Your task to perform on an android device: clear all cookies in the chrome app Image 0: 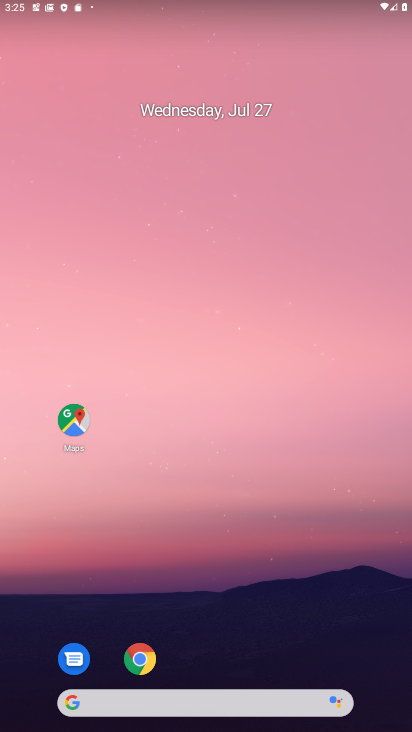
Step 0: click (135, 662)
Your task to perform on an android device: clear all cookies in the chrome app Image 1: 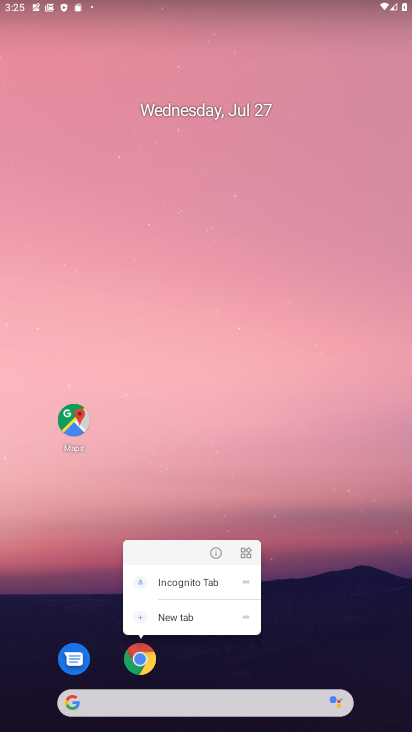
Step 1: click (141, 665)
Your task to perform on an android device: clear all cookies in the chrome app Image 2: 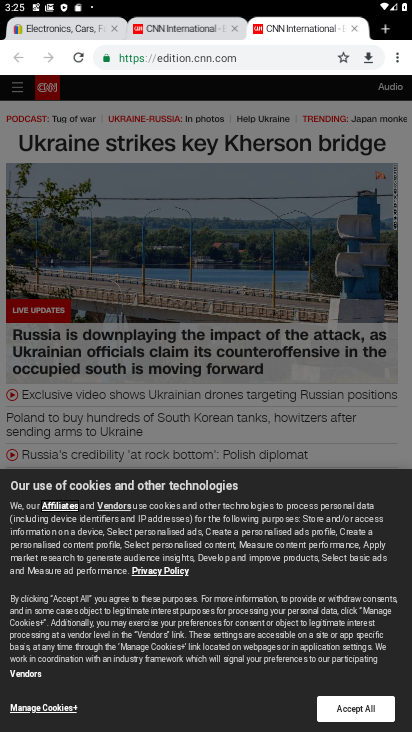
Step 2: click (401, 62)
Your task to perform on an android device: clear all cookies in the chrome app Image 3: 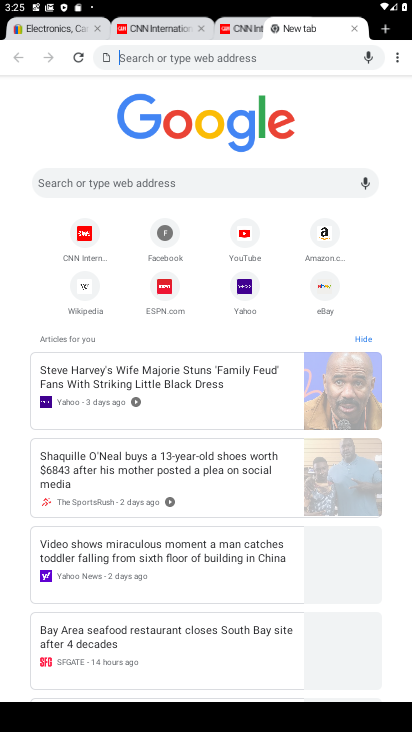
Step 3: click (396, 62)
Your task to perform on an android device: clear all cookies in the chrome app Image 4: 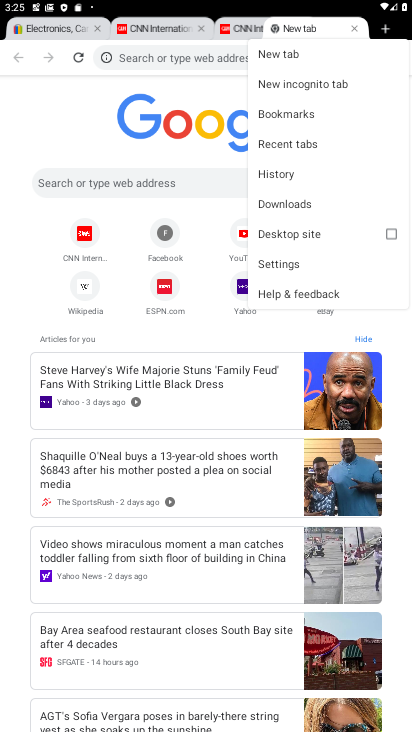
Step 4: click (284, 261)
Your task to perform on an android device: clear all cookies in the chrome app Image 5: 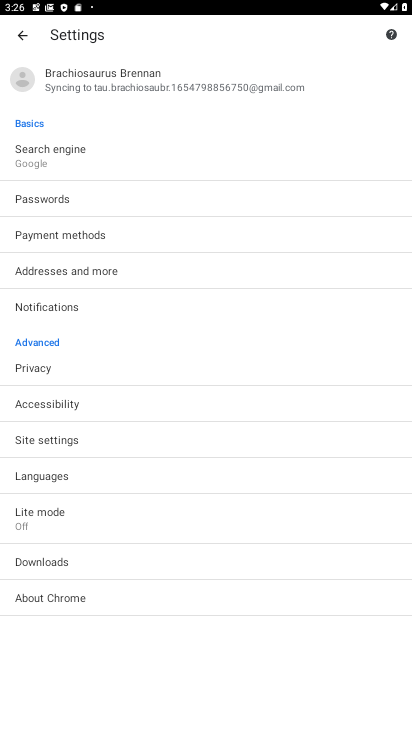
Step 5: click (28, 366)
Your task to perform on an android device: clear all cookies in the chrome app Image 6: 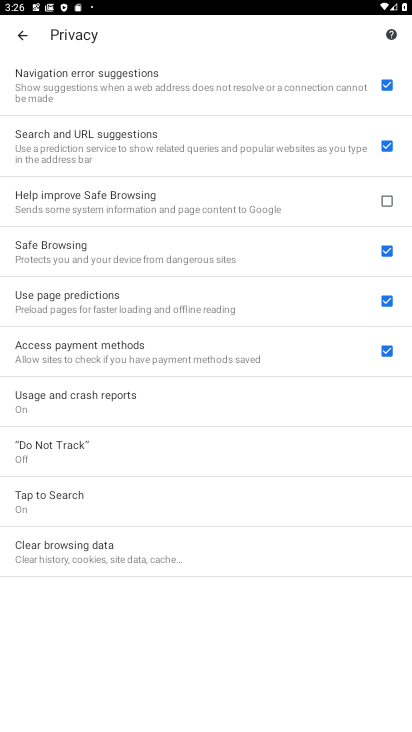
Step 6: click (127, 557)
Your task to perform on an android device: clear all cookies in the chrome app Image 7: 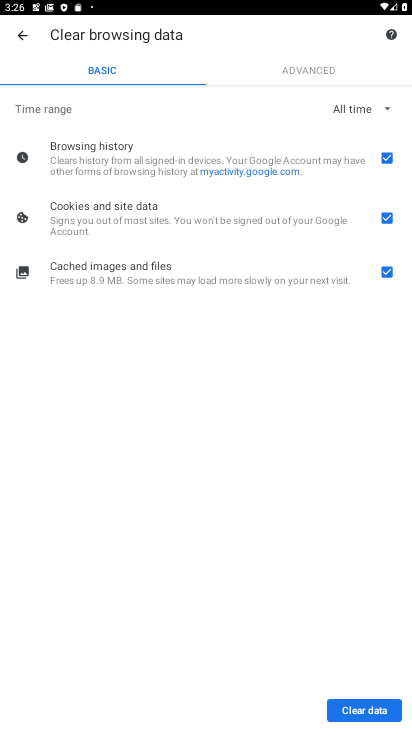
Step 7: click (368, 714)
Your task to perform on an android device: clear all cookies in the chrome app Image 8: 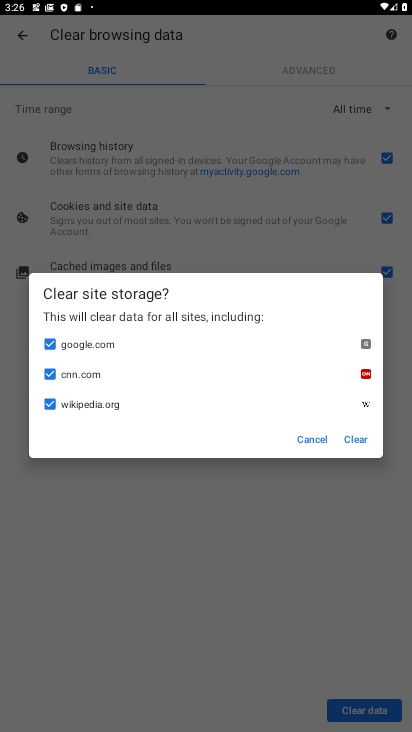
Step 8: click (352, 441)
Your task to perform on an android device: clear all cookies in the chrome app Image 9: 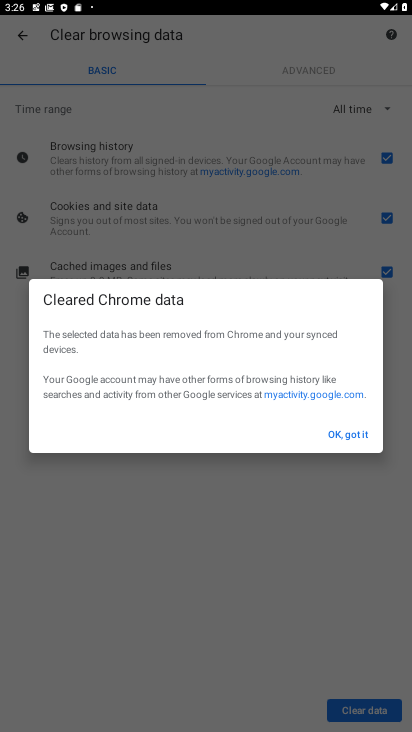
Step 9: click (358, 436)
Your task to perform on an android device: clear all cookies in the chrome app Image 10: 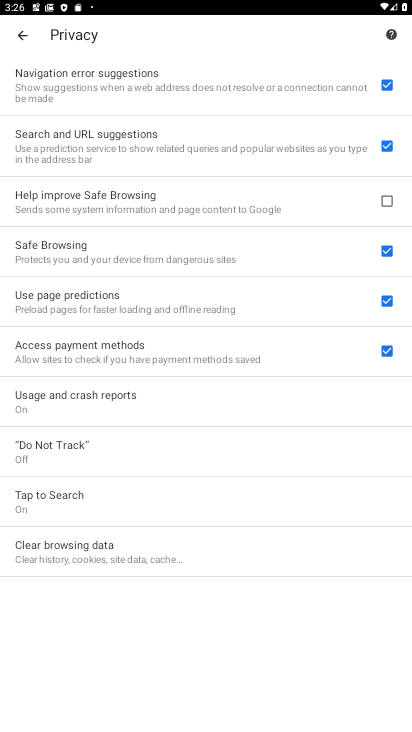
Step 10: task complete